Your task to perform on an android device: Open Android settings Image 0: 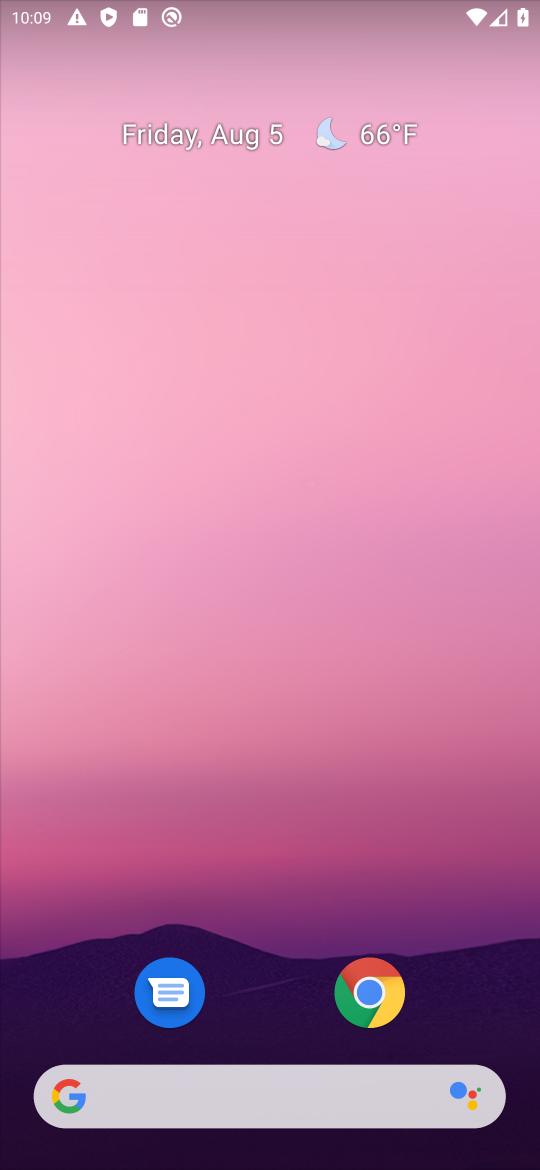
Step 0: drag from (305, 982) to (351, 314)
Your task to perform on an android device: Open Android settings Image 1: 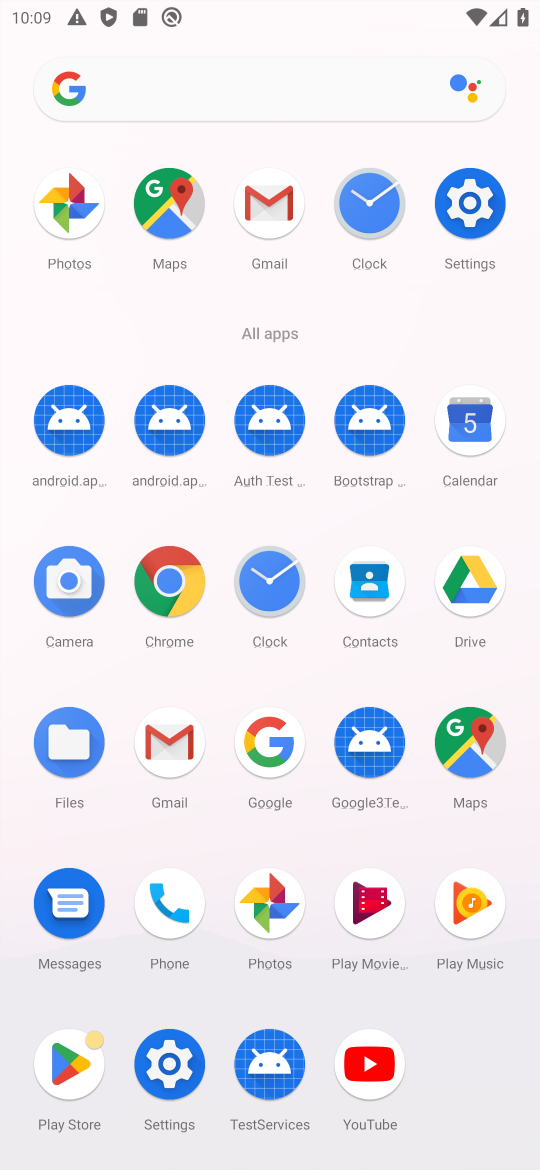
Step 1: click (490, 244)
Your task to perform on an android device: Open Android settings Image 2: 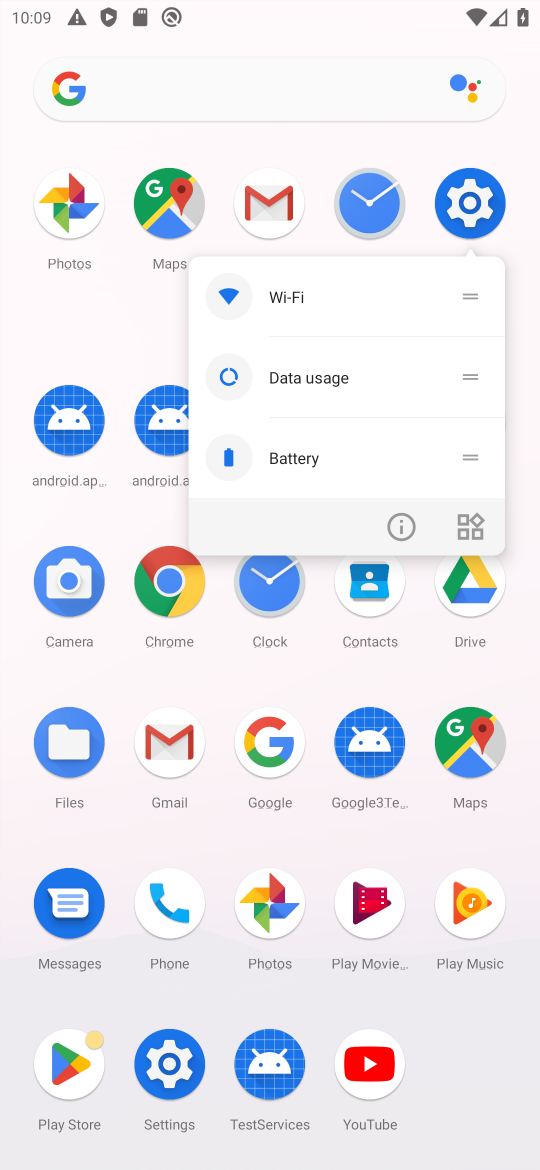
Step 2: click (482, 218)
Your task to perform on an android device: Open Android settings Image 3: 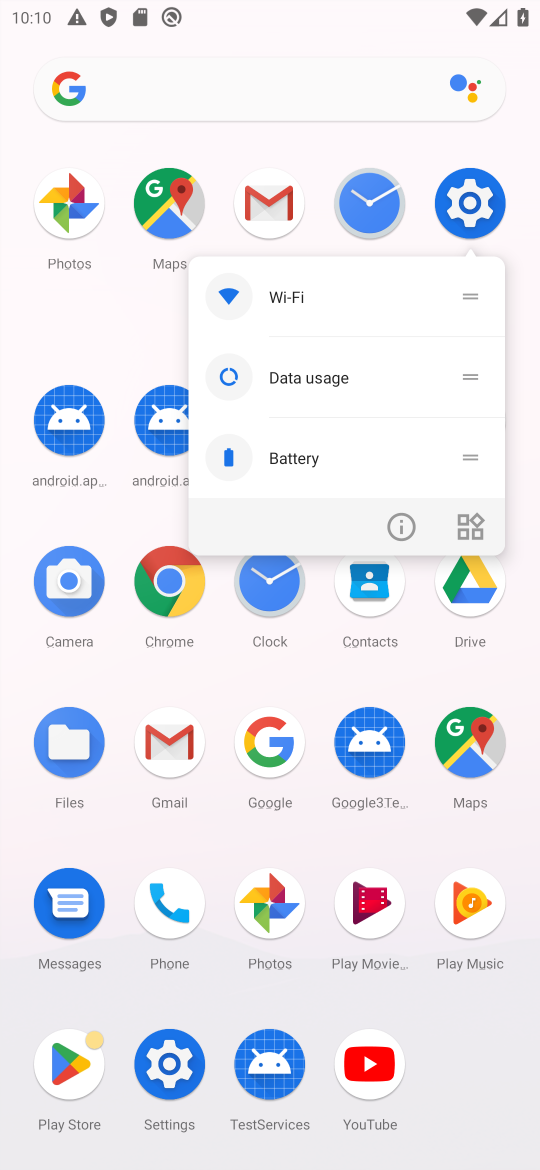
Step 3: click (482, 204)
Your task to perform on an android device: Open Android settings Image 4: 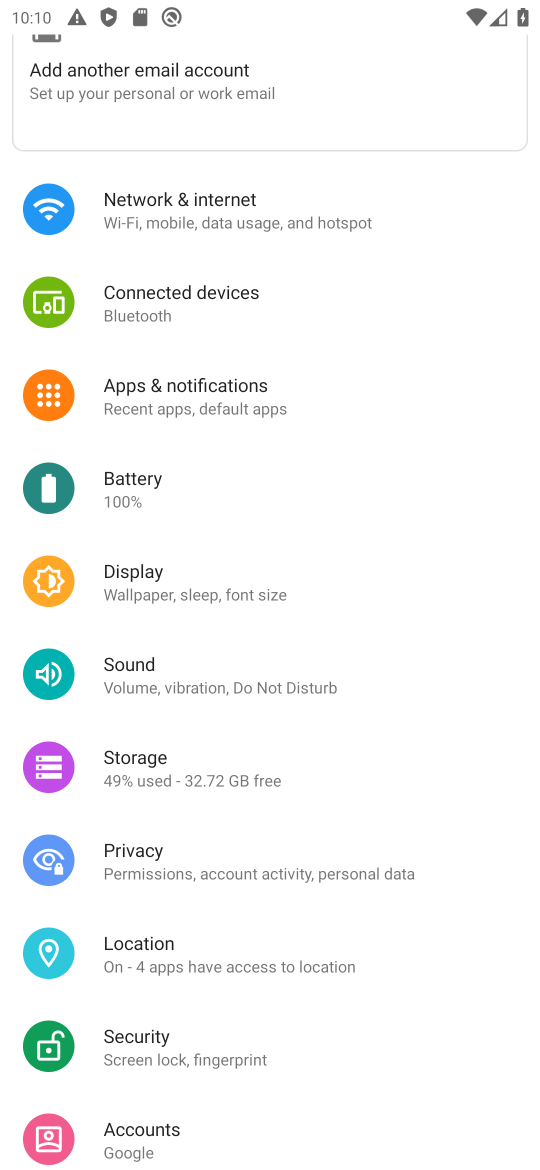
Step 4: drag from (235, 906) to (248, 469)
Your task to perform on an android device: Open Android settings Image 5: 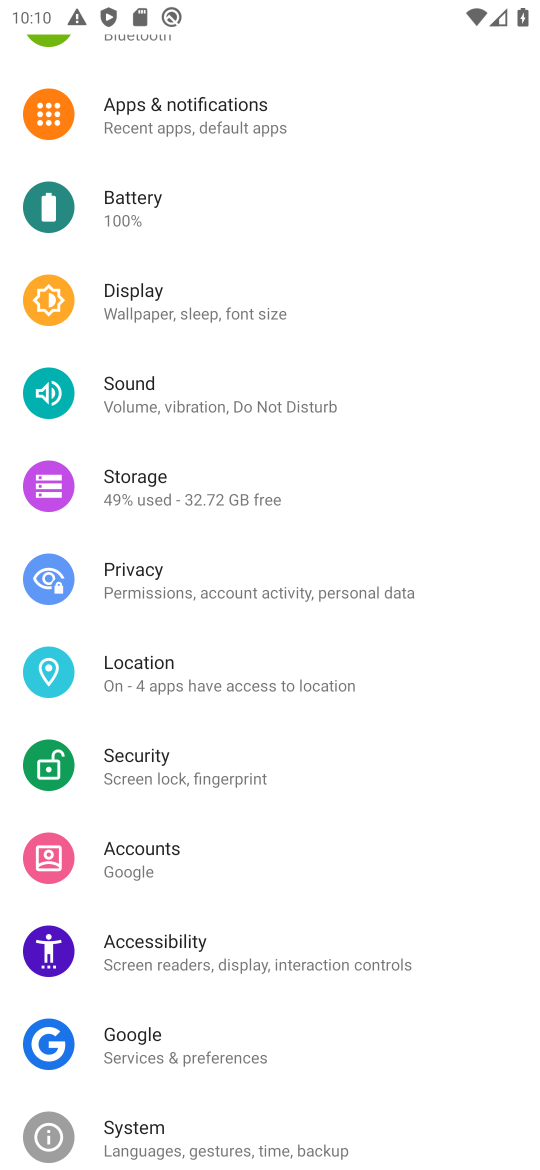
Step 5: drag from (245, 798) to (242, 368)
Your task to perform on an android device: Open Android settings Image 6: 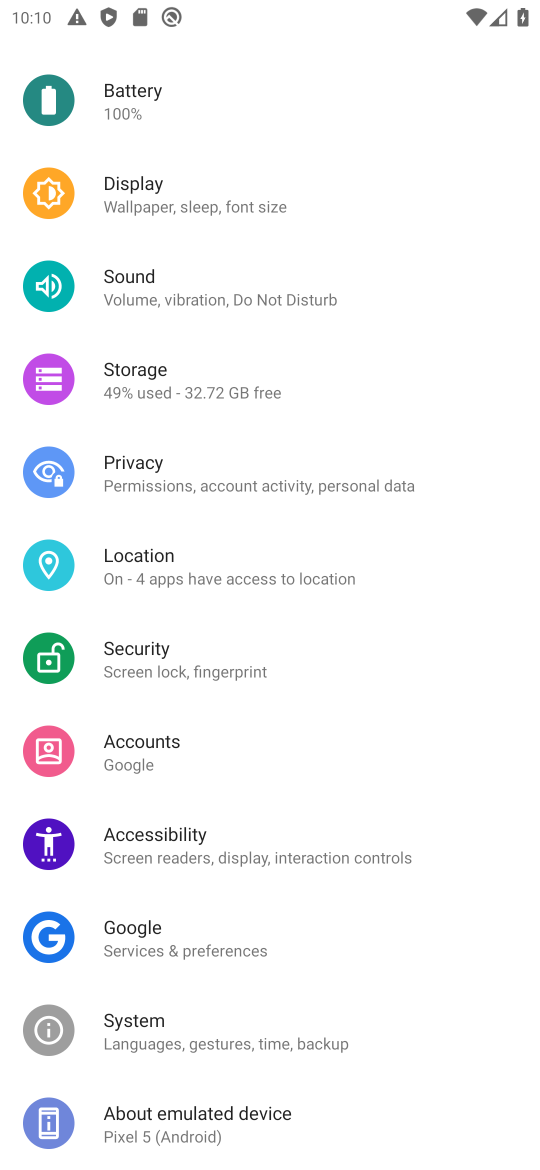
Step 6: click (145, 1121)
Your task to perform on an android device: Open Android settings Image 7: 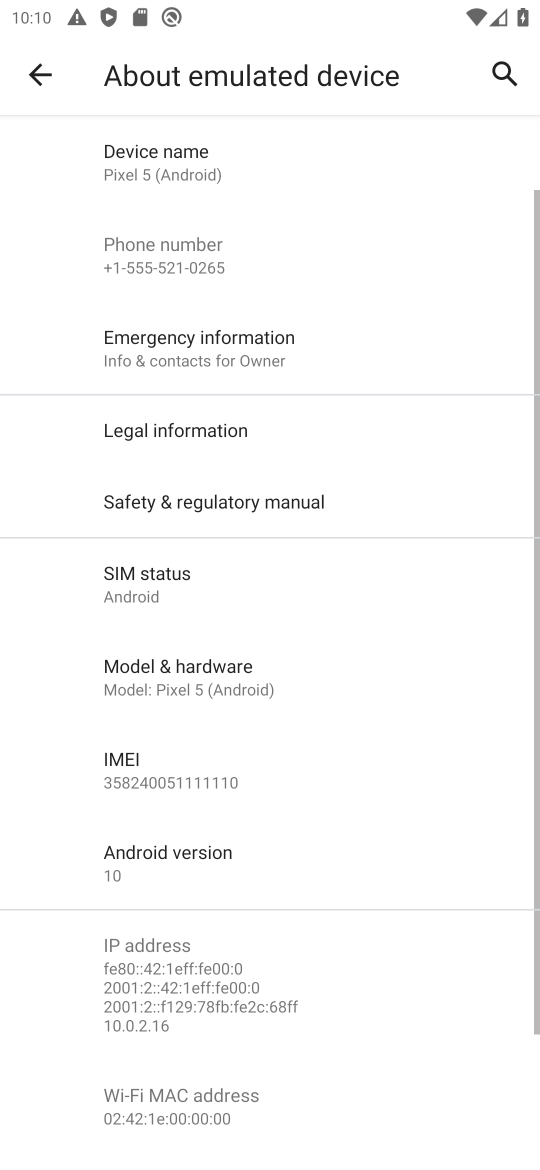
Step 7: click (219, 853)
Your task to perform on an android device: Open Android settings Image 8: 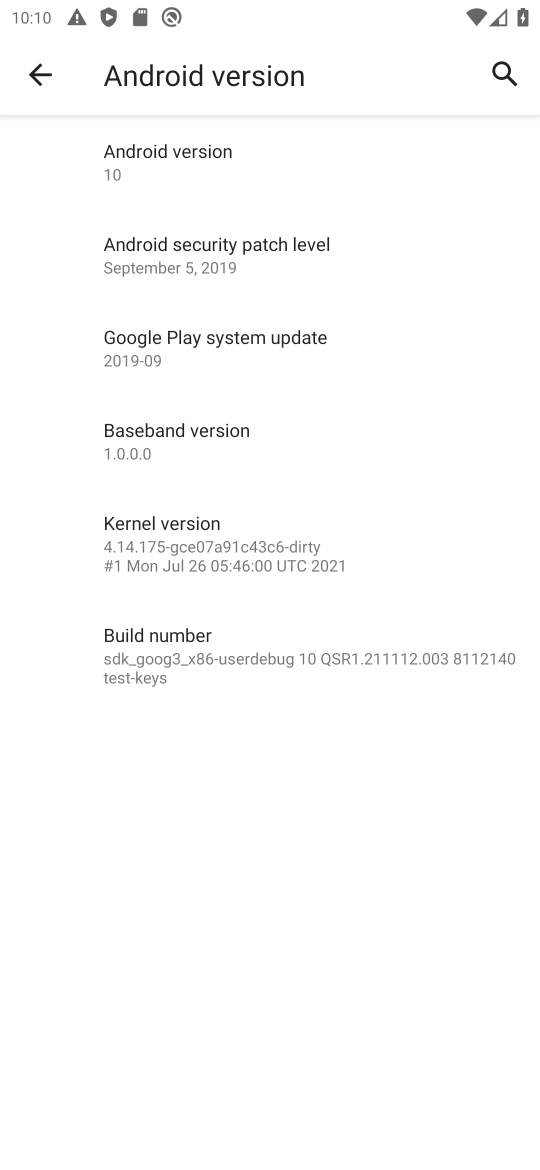
Step 8: click (361, 183)
Your task to perform on an android device: Open Android settings Image 9: 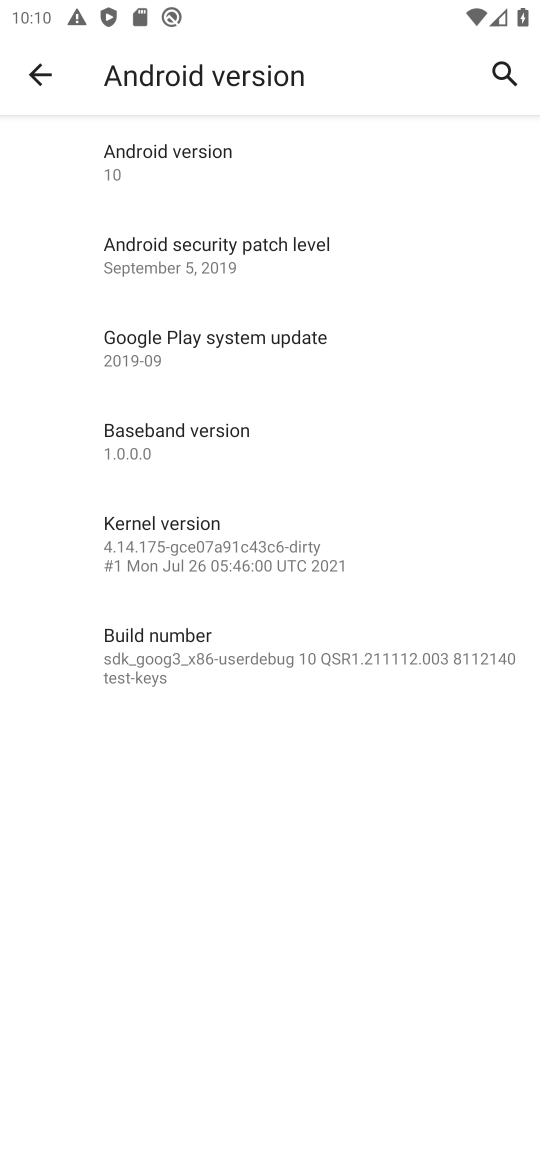
Step 9: task complete